Your task to perform on an android device: add a label to a message in the gmail app Image 0: 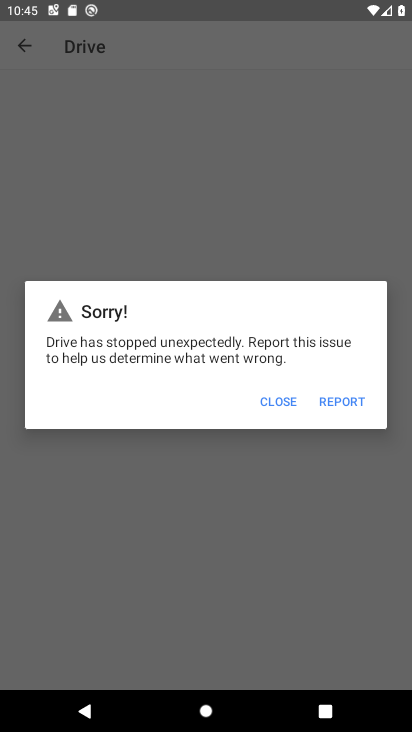
Step 0: press home button
Your task to perform on an android device: add a label to a message in the gmail app Image 1: 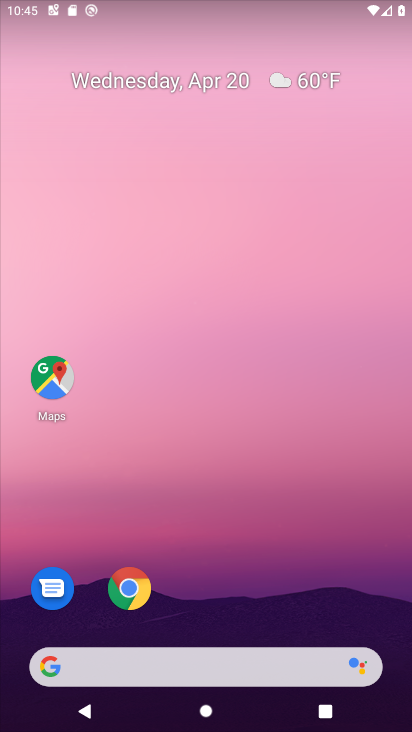
Step 1: drag from (223, 555) to (385, 464)
Your task to perform on an android device: add a label to a message in the gmail app Image 2: 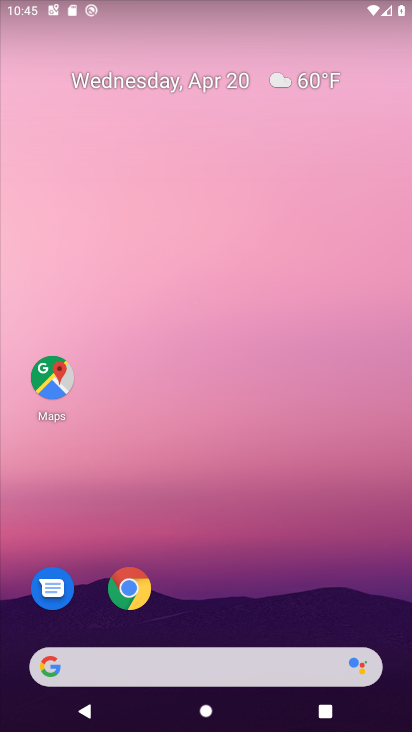
Step 2: drag from (228, 578) to (226, 7)
Your task to perform on an android device: add a label to a message in the gmail app Image 3: 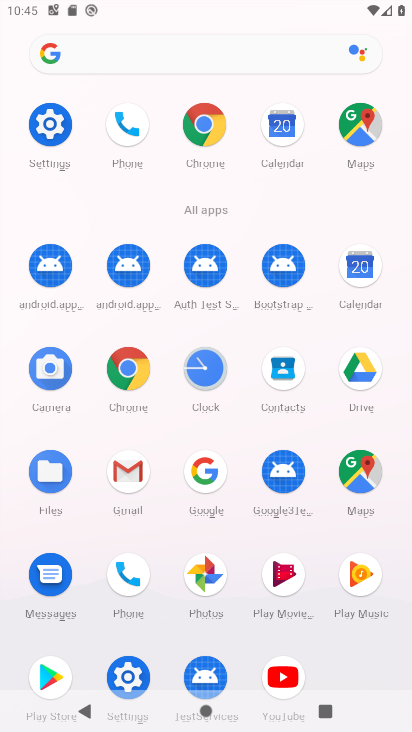
Step 3: click (130, 473)
Your task to perform on an android device: add a label to a message in the gmail app Image 4: 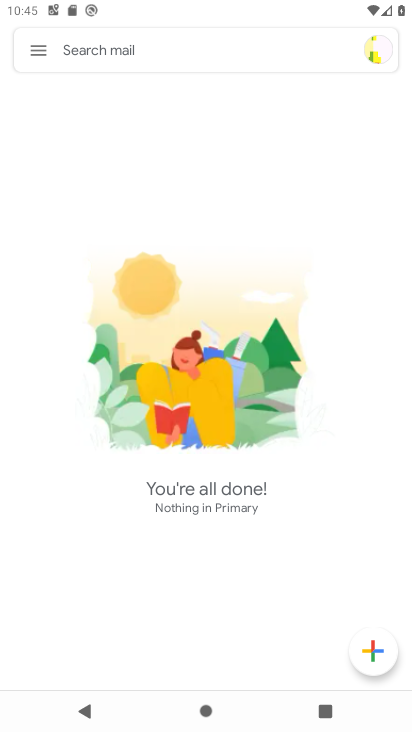
Step 4: click (32, 49)
Your task to perform on an android device: add a label to a message in the gmail app Image 5: 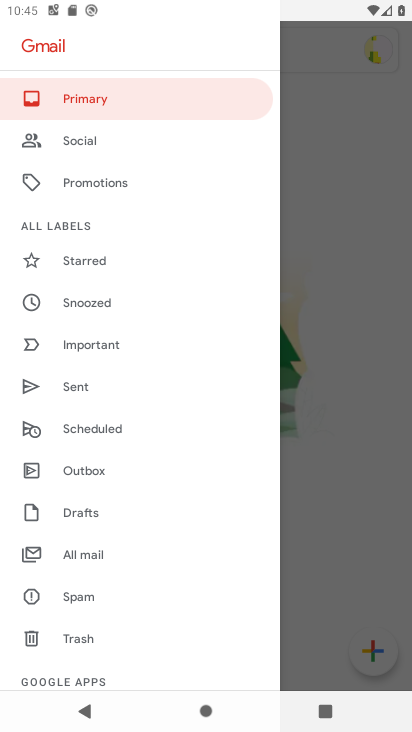
Step 5: click (81, 560)
Your task to perform on an android device: add a label to a message in the gmail app Image 6: 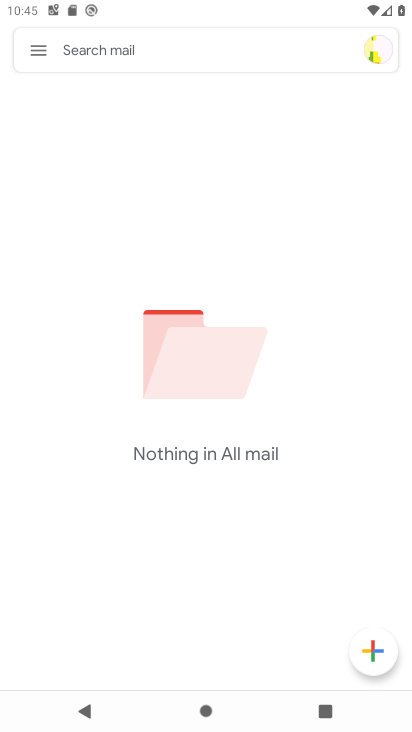
Step 6: task complete